Your task to perform on an android device: clear history in the chrome app Image 0: 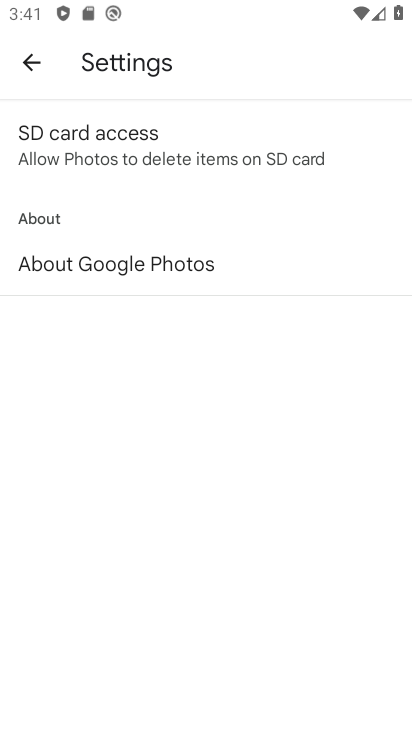
Step 0: press home button
Your task to perform on an android device: clear history in the chrome app Image 1: 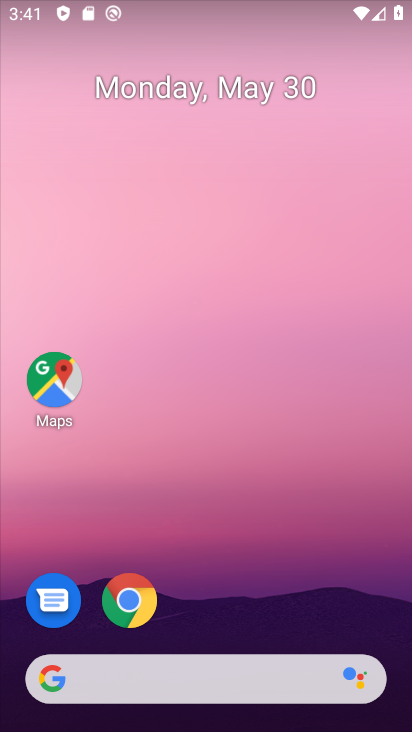
Step 1: click (133, 608)
Your task to perform on an android device: clear history in the chrome app Image 2: 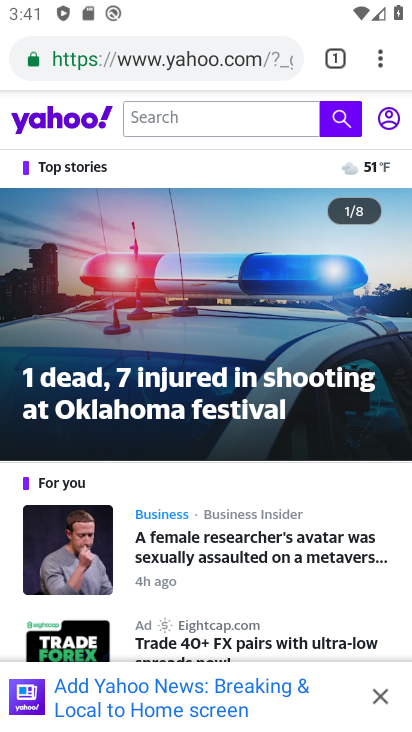
Step 2: click (383, 72)
Your task to perform on an android device: clear history in the chrome app Image 3: 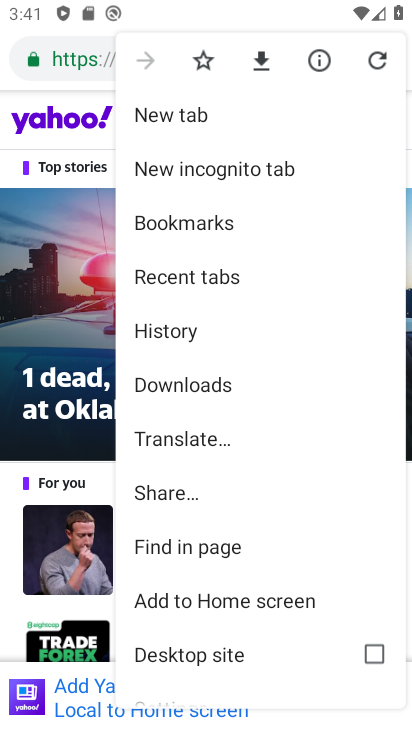
Step 3: click (176, 328)
Your task to perform on an android device: clear history in the chrome app Image 4: 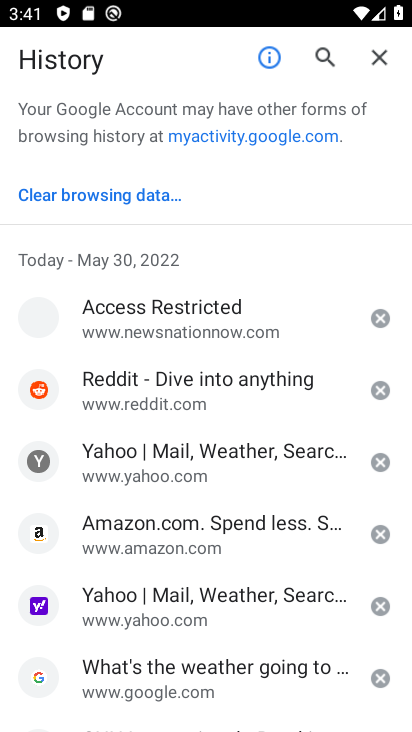
Step 4: click (128, 197)
Your task to perform on an android device: clear history in the chrome app Image 5: 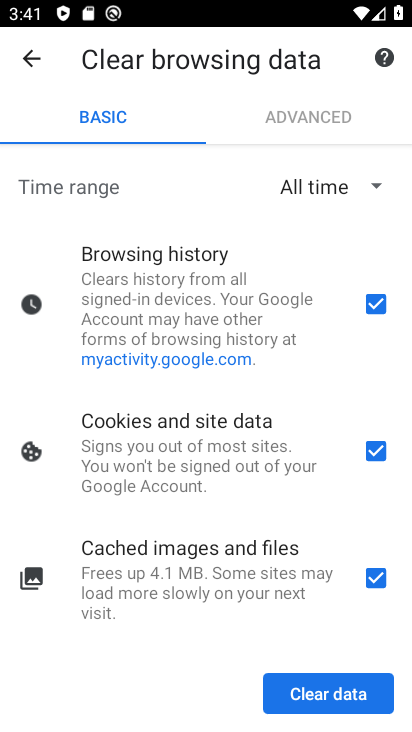
Step 5: click (373, 579)
Your task to perform on an android device: clear history in the chrome app Image 6: 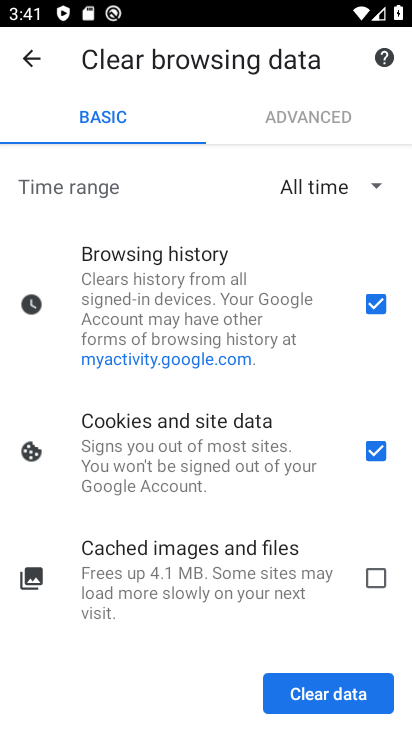
Step 6: click (377, 459)
Your task to perform on an android device: clear history in the chrome app Image 7: 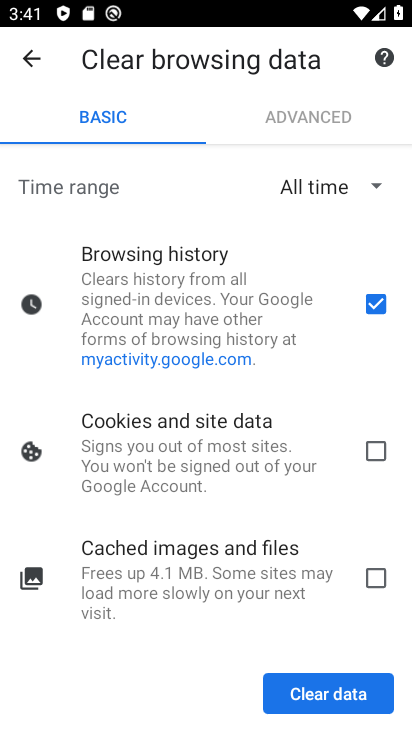
Step 7: click (359, 695)
Your task to perform on an android device: clear history in the chrome app Image 8: 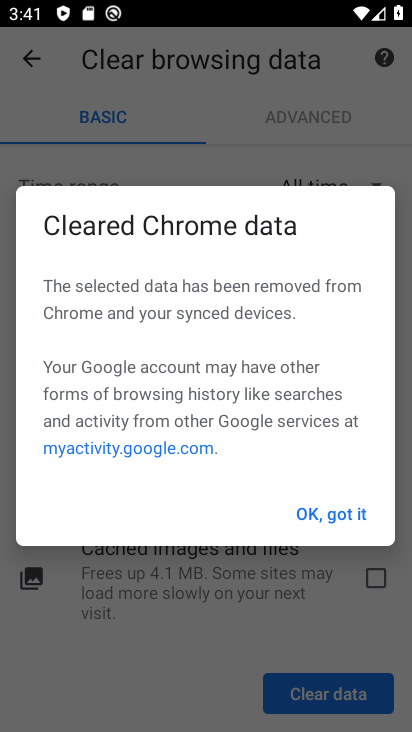
Step 8: click (328, 519)
Your task to perform on an android device: clear history in the chrome app Image 9: 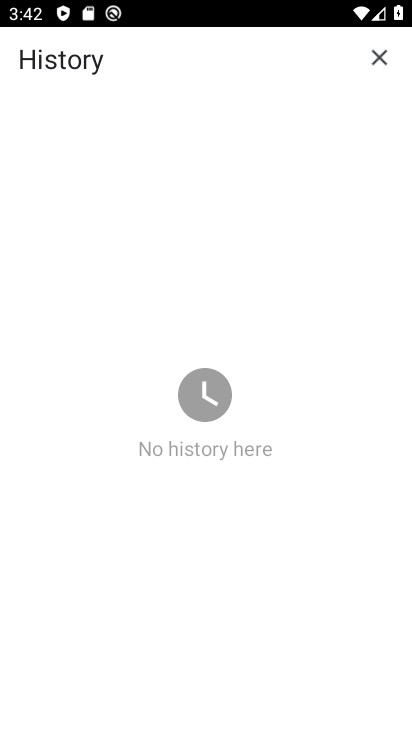
Step 9: task complete